Your task to perform on an android device: empty trash in the gmail app Image 0: 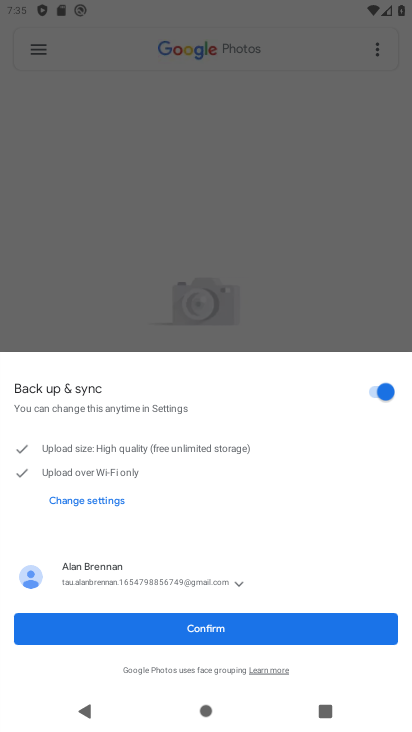
Step 0: press home button
Your task to perform on an android device: empty trash in the gmail app Image 1: 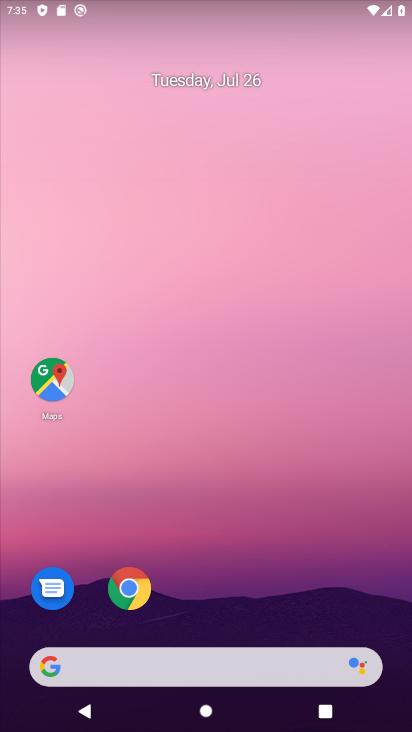
Step 1: drag from (185, 641) to (0, 155)
Your task to perform on an android device: empty trash in the gmail app Image 2: 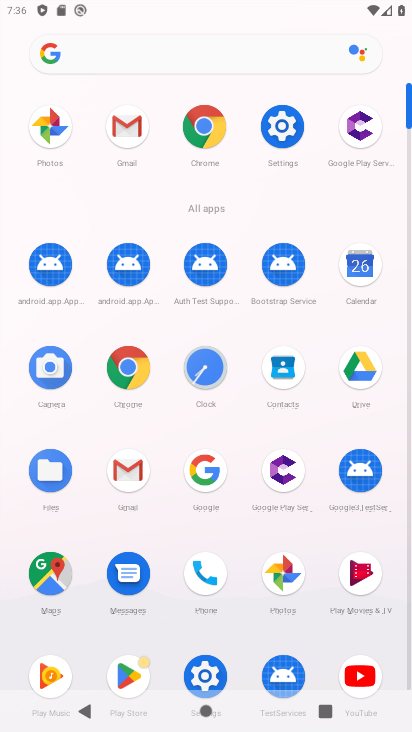
Step 2: click (117, 113)
Your task to perform on an android device: empty trash in the gmail app Image 3: 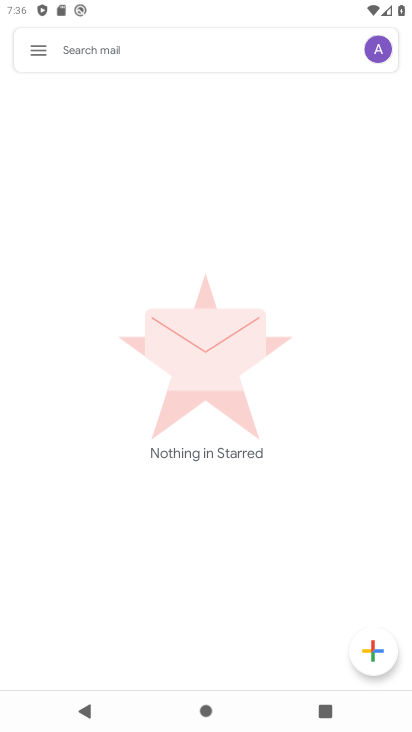
Step 3: click (29, 47)
Your task to perform on an android device: empty trash in the gmail app Image 4: 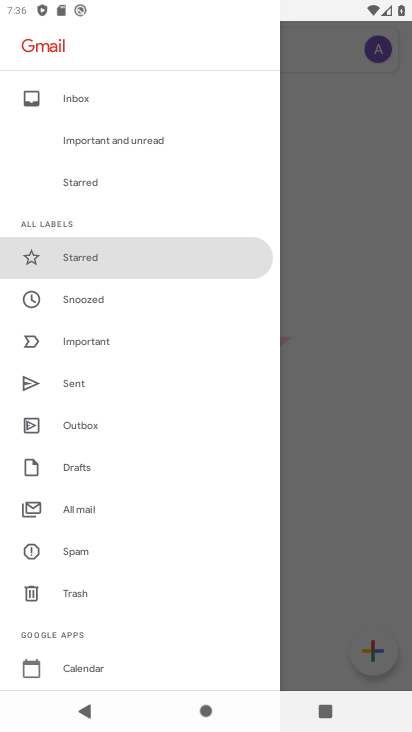
Step 4: click (69, 587)
Your task to perform on an android device: empty trash in the gmail app Image 5: 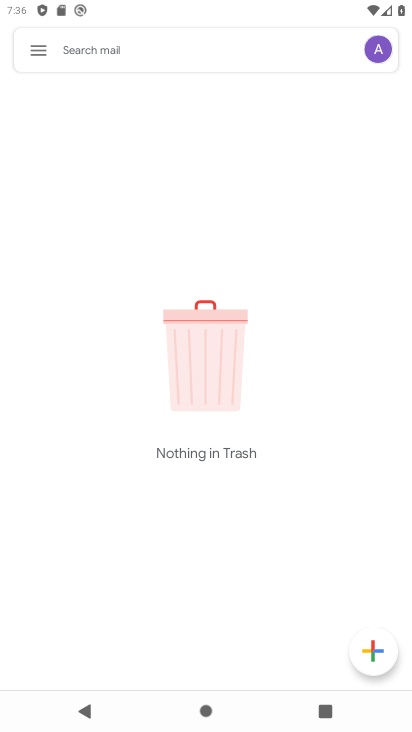
Step 5: task complete